Your task to perform on an android device: How do I get to the nearest Best Buy? Image 0: 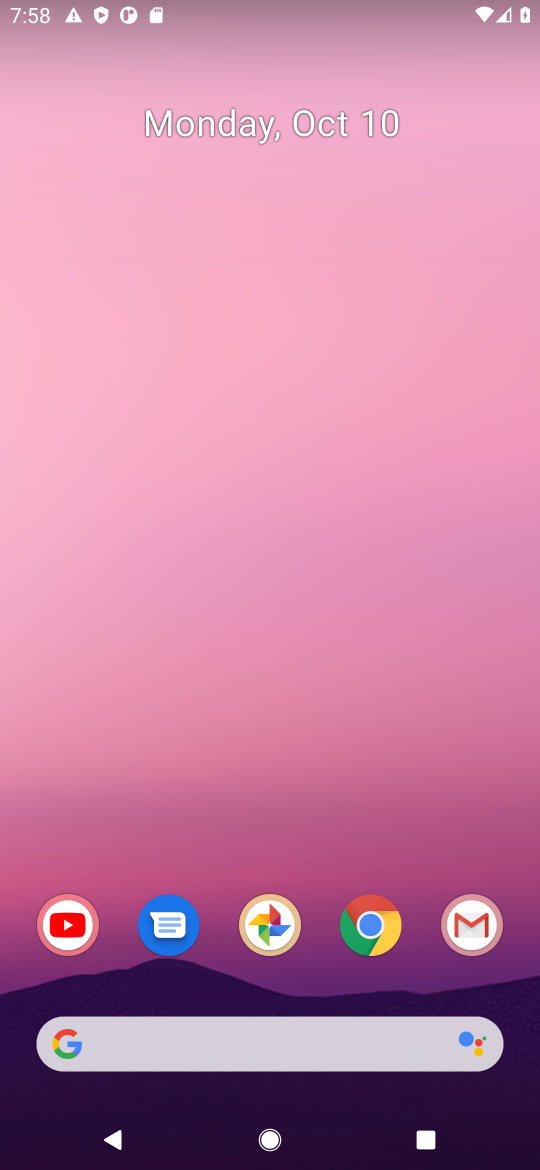
Step 0: drag from (324, 988) to (409, 253)
Your task to perform on an android device: How do I get to the nearest Best Buy? Image 1: 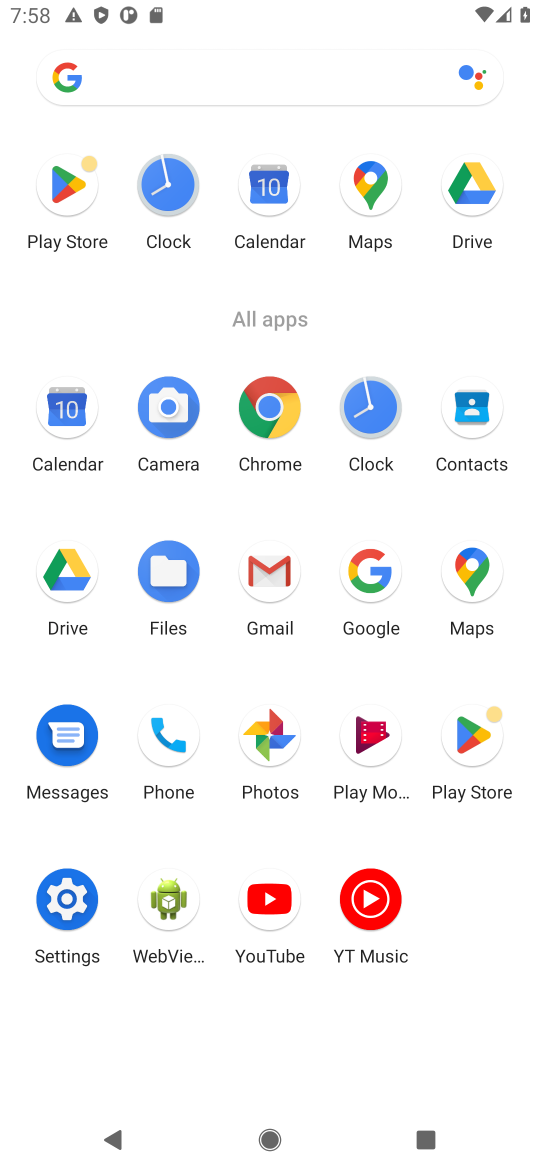
Step 1: click (269, 404)
Your task to perform on an android device: How do I get to the nearest Best Buy? Image 2: 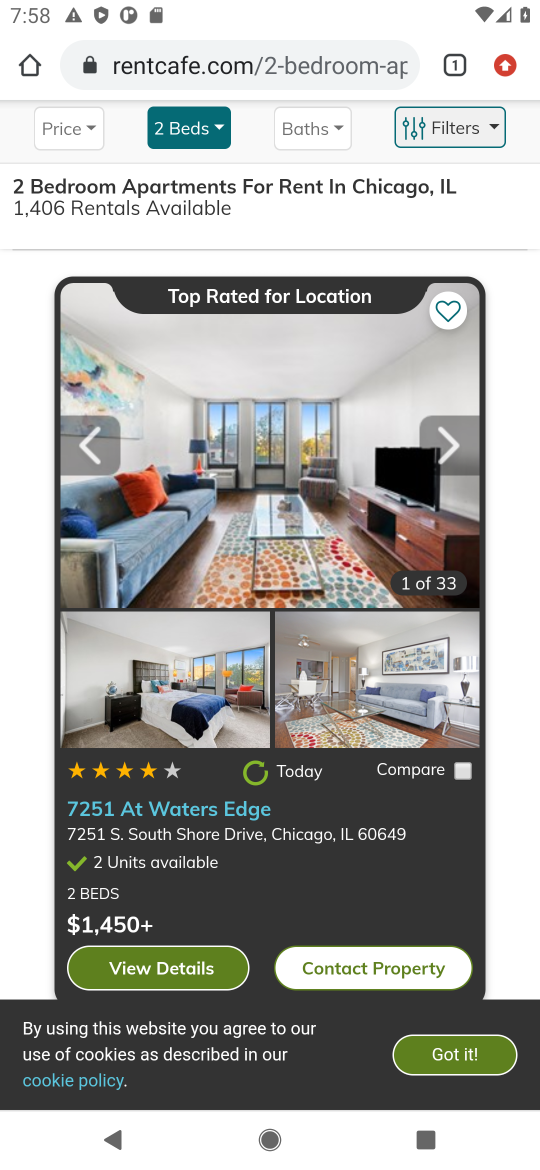
Step 2: click (255, 73)
Your task to perform on an android device: How do I get to the nearest Best Buy? Image 3: 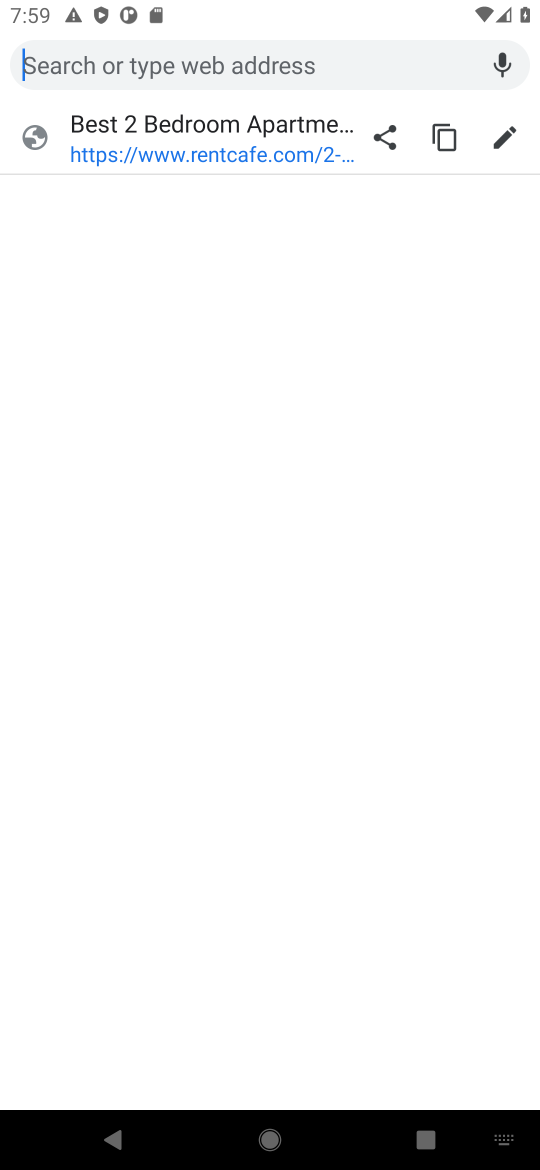
Step 3: type "How do I get to the nearest Best Buy?"
Your task to perform on an android device: How do I get to the nearest Best Buy? Image 4: 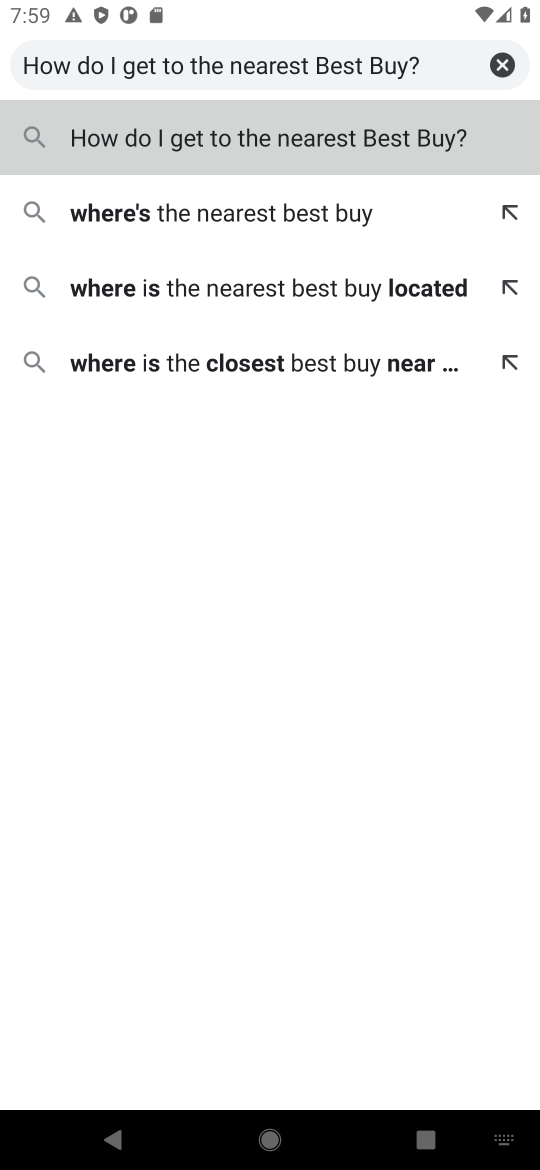
Step 4: press enter
Your task to perform on an android device: How do I get to the nearest Best Buy? Image 5: 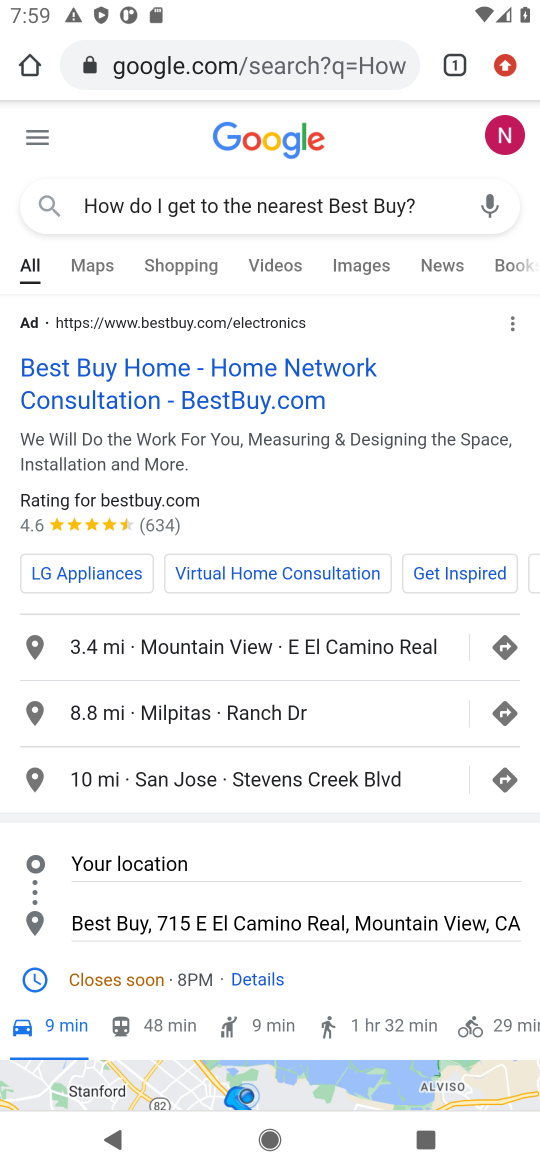
Step 5: task complete